Your task to perform on an android device: check the backup settings in the google photos Image 0: 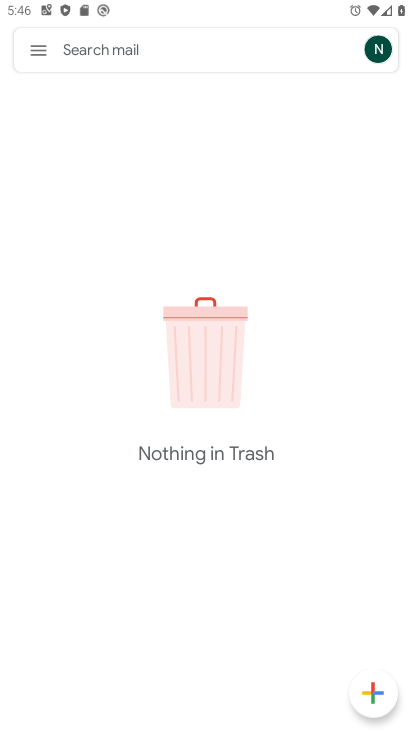
Step 0: press home button
Your task to perform on an android device: check the backup settings in the google photos Image 1: 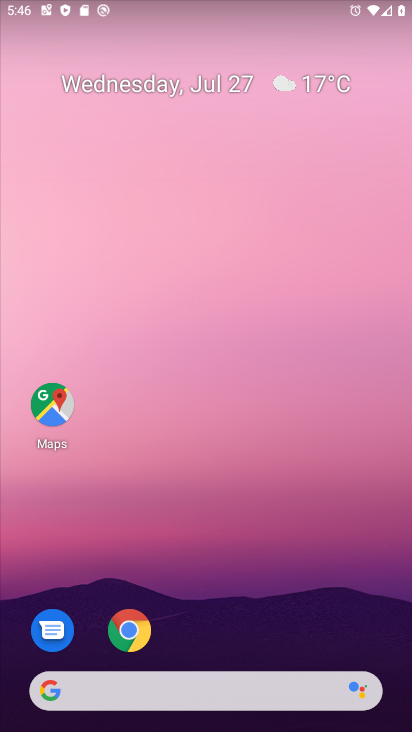
Step 1: drag from (202, 652) to (218, 44)
Your task to perform on an android device: check the backup settings in the google photos Image 2: 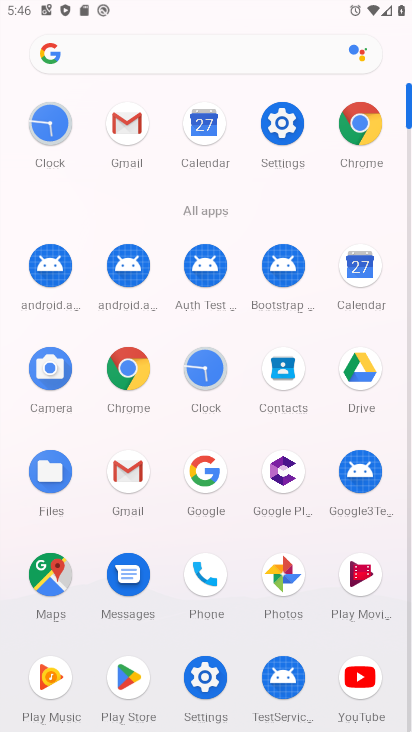
Step 2: click (274, 563)
Your task to perform on an android device: check the backup settings in the google photos Image 3: 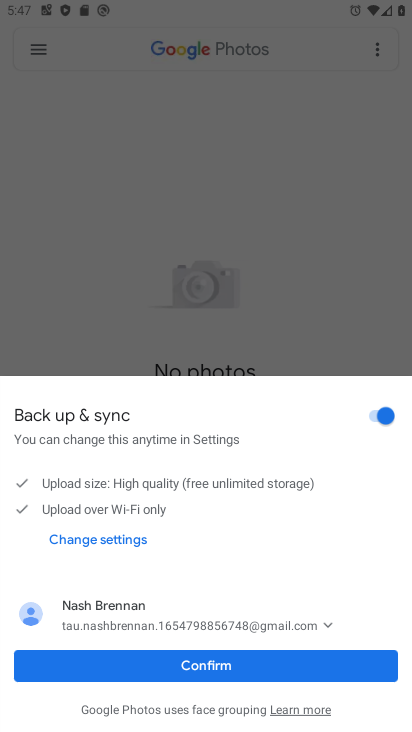
Step 3: click (203, 659)
Your task to perform on an android device: check the backup settings in the google photos Image 4: 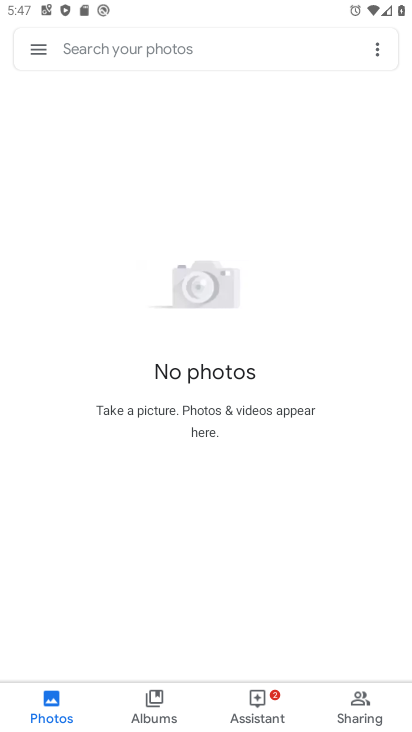
Step 4: click (36, 46)
Your task to perform on an android device: check the backup settings in the google photos Image 5: 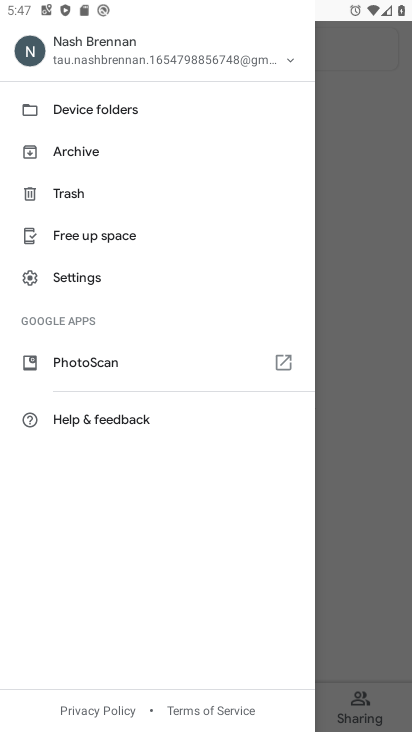
Step 5: click (111, 268)
Your task to perform on an android device: check the backup settings in the google photos Image 6: 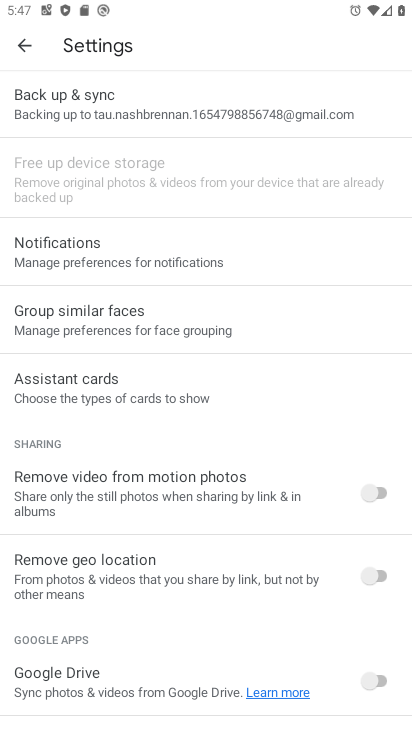
Step 6: click (80, 98)
Your task to perform on an android device: check the backup settings in the google photos Image 7: 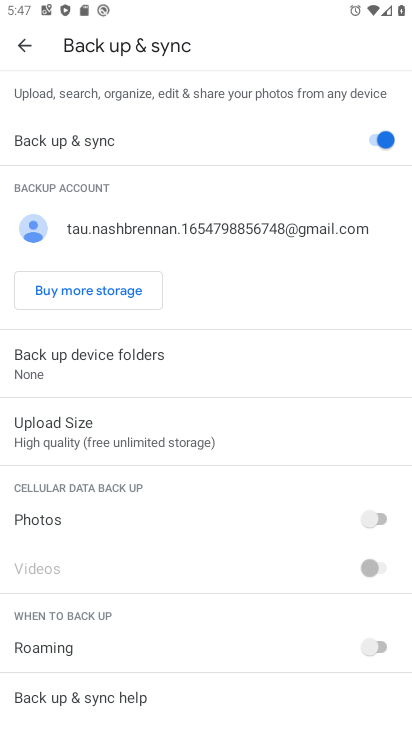
Step 7: task complete